Your task to perform on an android device: Open Google Maps and go to "Timeline" Image 0: 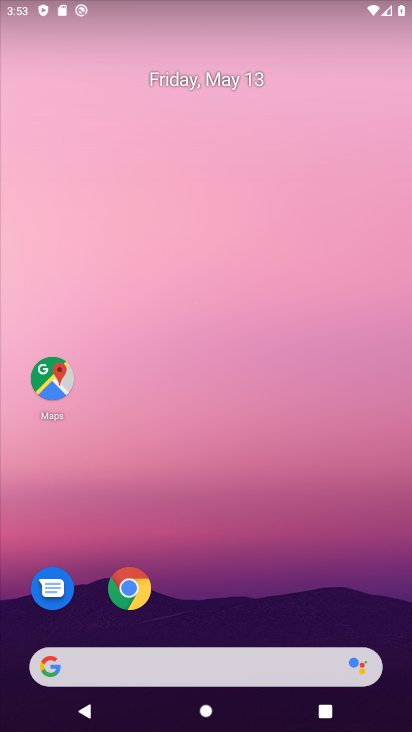
Step 0: click (59, 375)
Your task to perform on an android device: Open Google Maps and go to "Timeline" Image 1: 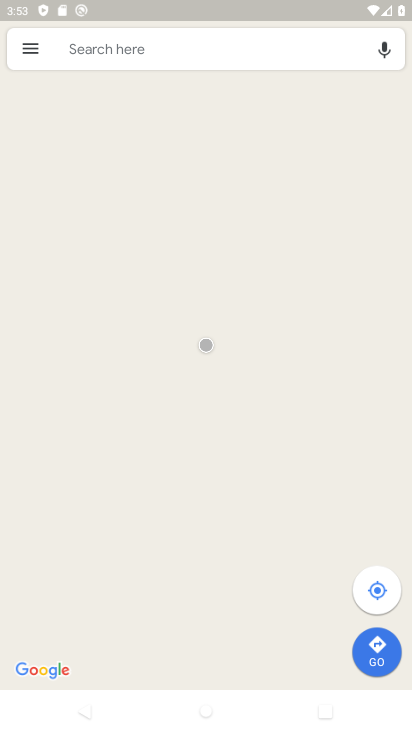
Step 1: click (37, 58)
Your task to perform on an android device: Open Google Maps and go to "Timeline" Image 2: 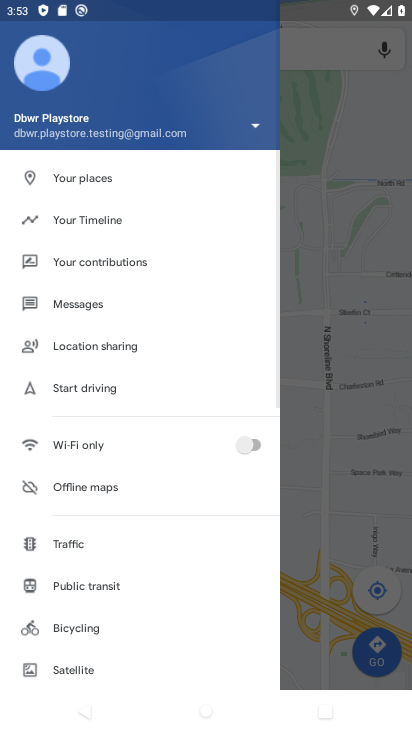
Step 2: click (87, 222)
Your task to perform on an android device: Open Google Maps and go to "Timeline" Image 3: 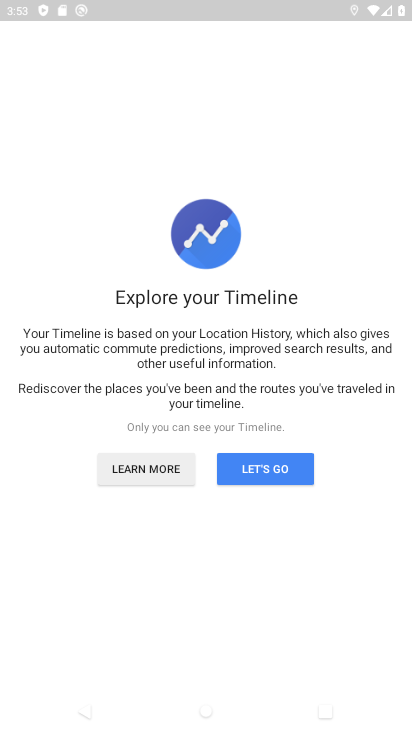
Step 3: click (260, 482)
Your task to perform on an android device: Open Google Maps and go to "Timeline" Image 4: 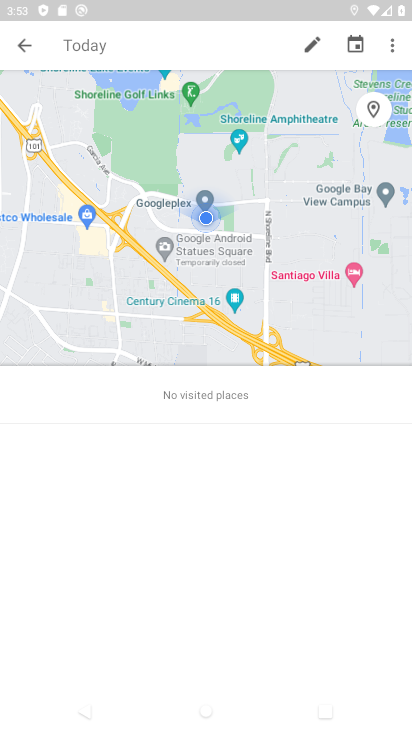
Step 4: task complete